Your task to perform on an android device: turn off location history Image 0: 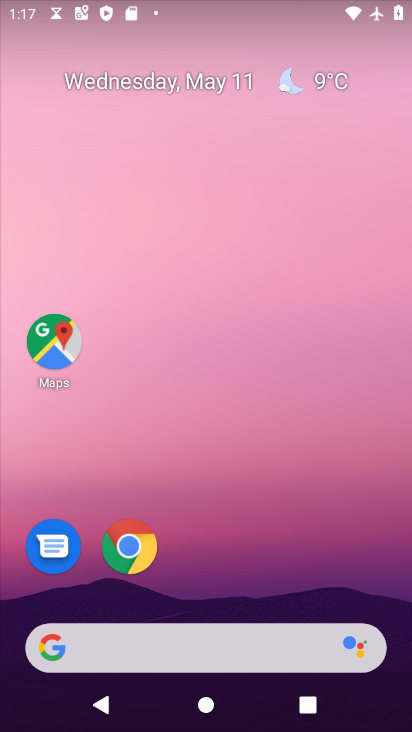
Step 0: drag from (273, 634) to (276, 93)
Your task to perform on an android device: turn off location history Image 1: 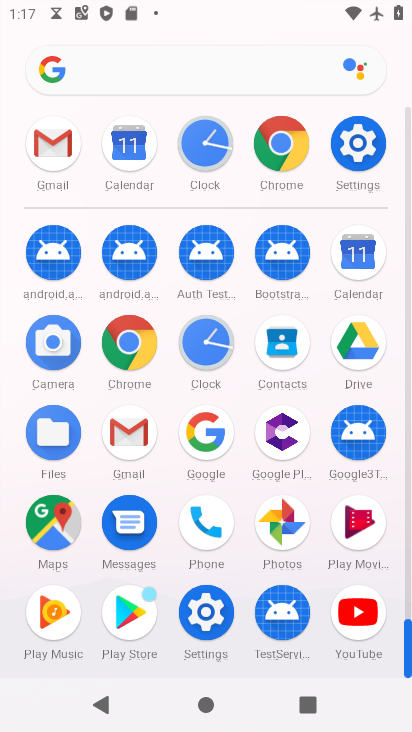
Step 1: click (348, 142)
Your task to perform on an android device: turn off location history Image 2: 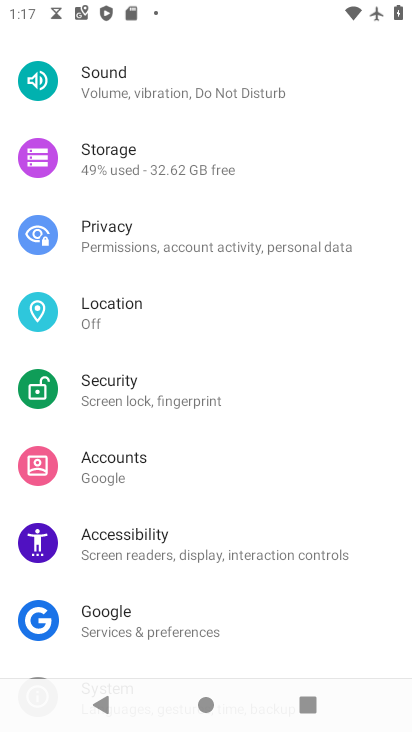
Step 2: click (153, 319)
Your task to perform on an android device: turn off location history Image 3: 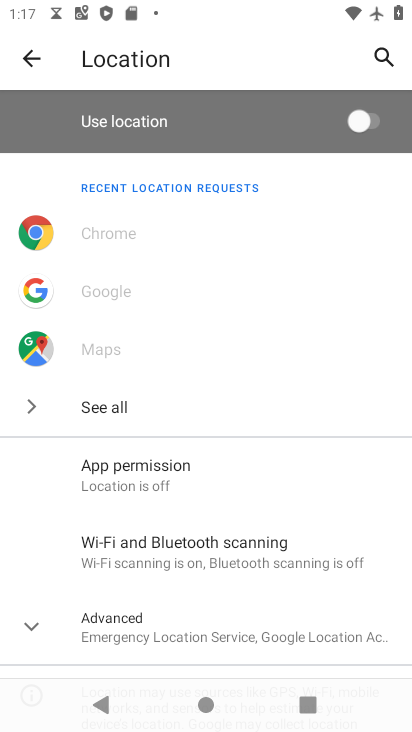
Step 3: drag from (179, 666) to (195, 289)
Your task to perform on an android device: turn off location history Image 4: 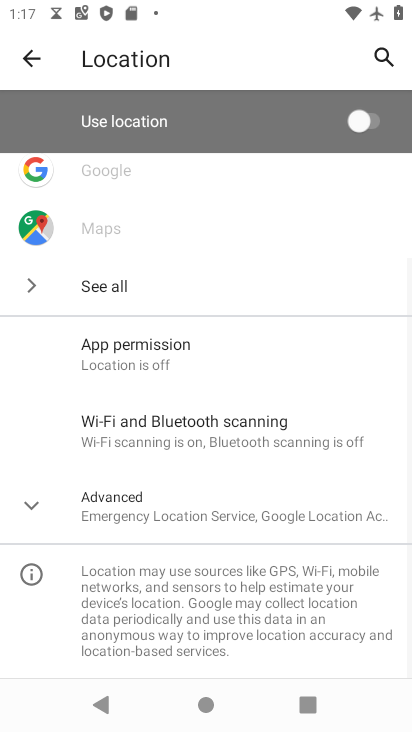
Step 4: click (169, 498)
Your task to perform on an android device: turn off location history Image 5: 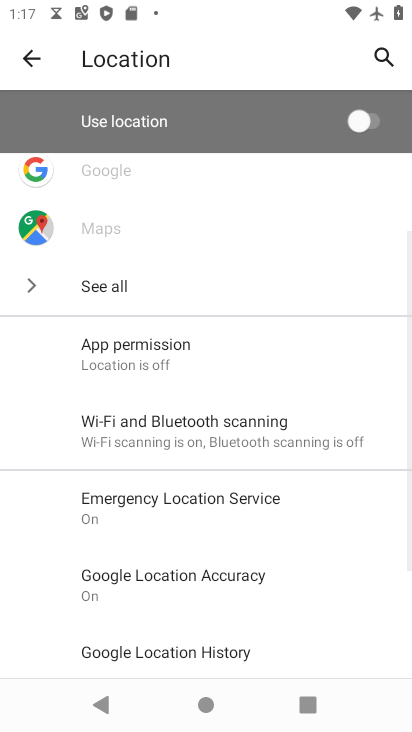
Step 5: drag from (187, 667) to (196, 434)
Your task to perform on an android device: turn off location history Image 6: 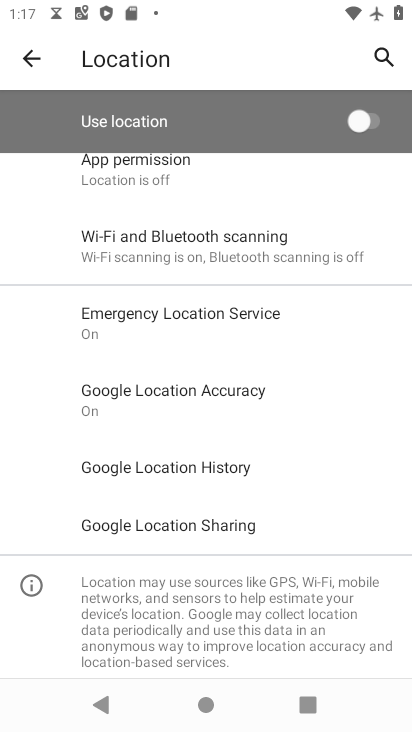
Step 6: click (172, 472)
Your task to perform on an android device: turn off location history Image 7: 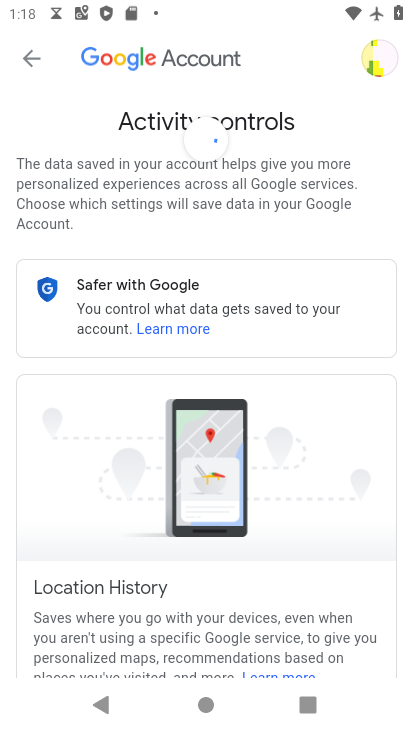
Step 7: drag from (276, 643) to (312, 145)
Your task to perform on an android device: turn off location history Image 8: 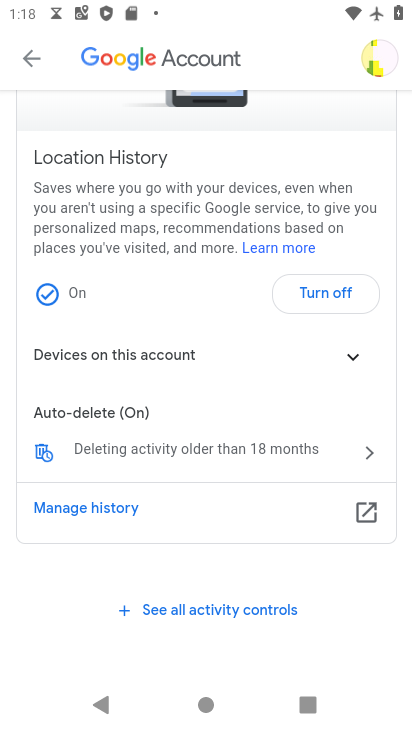
Step 8: click (337, 287)
Your task to perform on an android device: turn off location history Image 9: 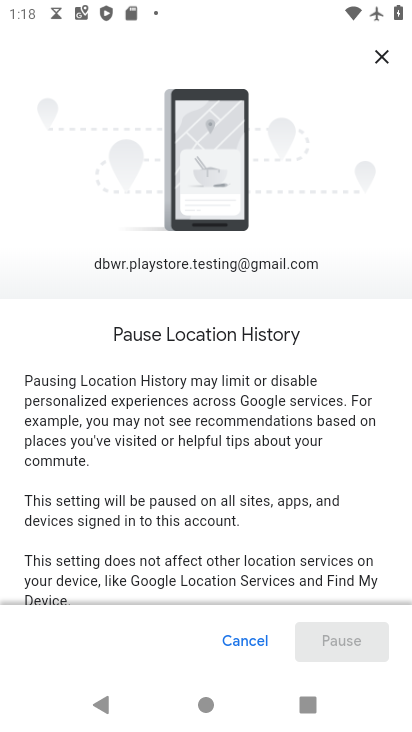
Step 9: drag from (318, 564) to (375, 59)
Your task to perform on an android device: turn off location history Image 10: 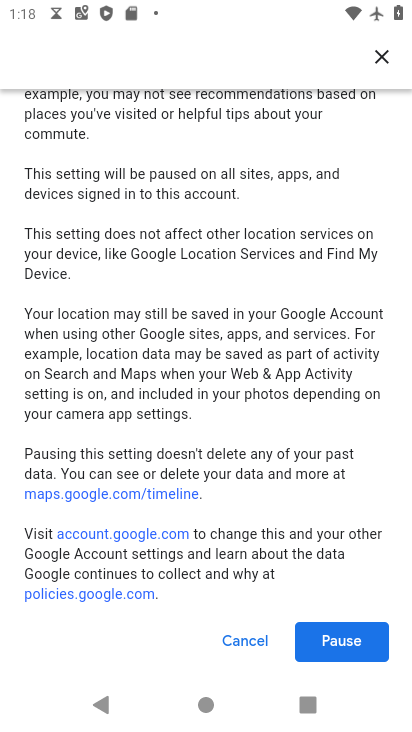
Step 10: click (354, 642)
Your task to perform on an android device: turn off location history Image 11: 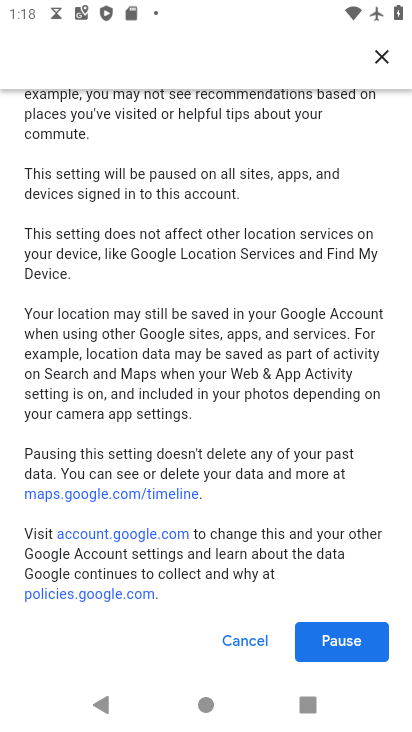
Step 11: click (354, 641)
Your task to perform on an android device: turn off location history Image 12: 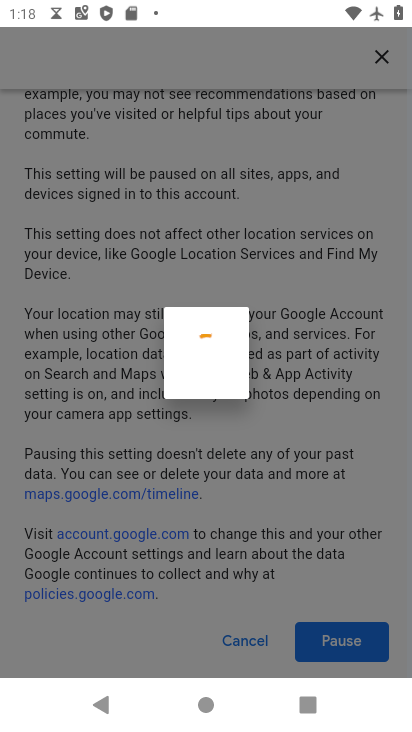
Step 12: click (354, 641)
Your task to perform on an android device: turn off location history Image 13: 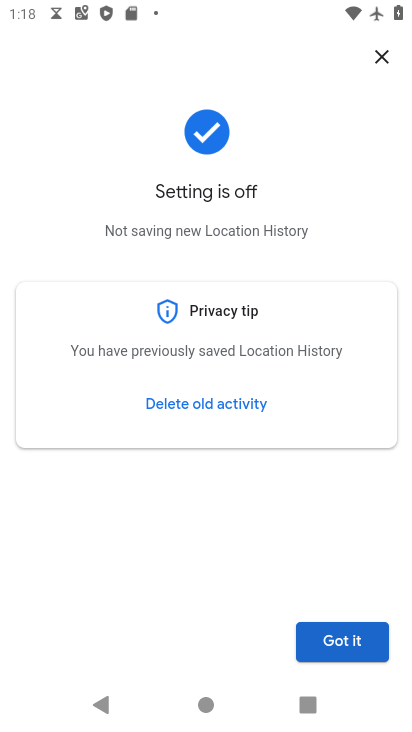
Step 13: task complete